Your task to perform on an android device: Go to settings Image 0: 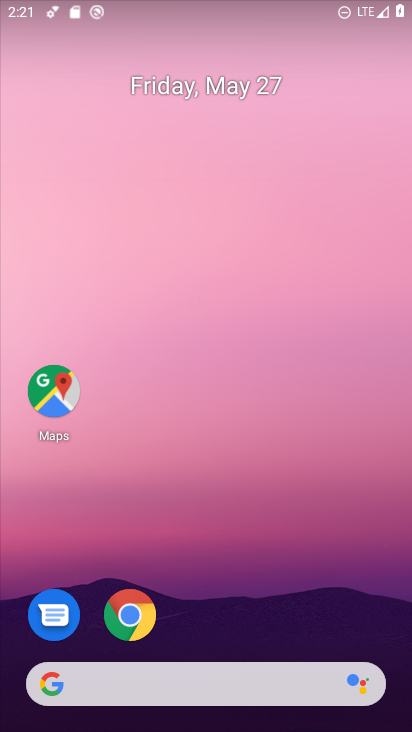
Step 0: drag from (244, 586) to (210, 143)
Your task to perform on an android device: Go to settings Image 1: 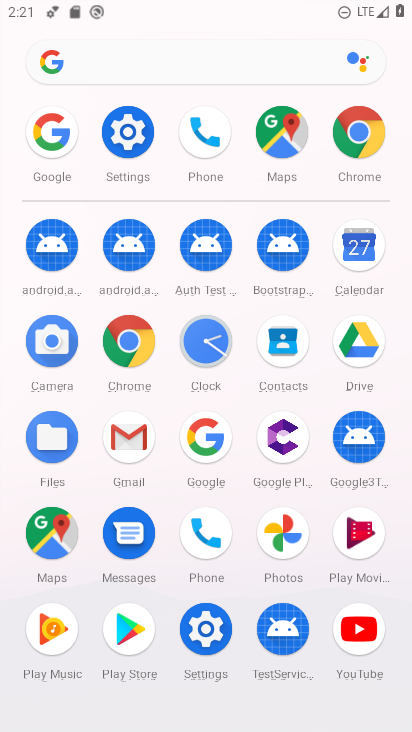
Step 1: click (219, 644)
Your task to perform on an android device: Go to settings Image 2: 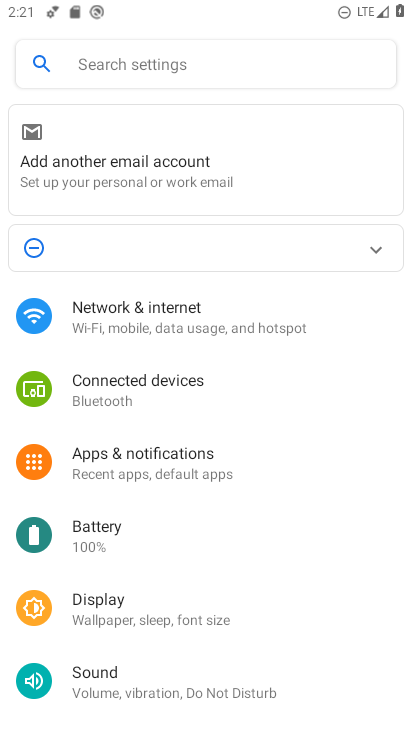
Step 2: task complete